Your task to perform on an android device: delete browsing data in the chrome app Image 0: 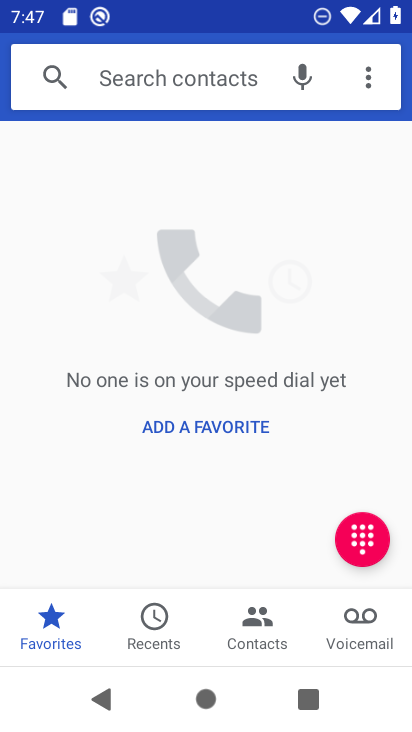
Step 0: press home button
Your task to perform on an android device: delete browsing data in the chrome app Image 1: 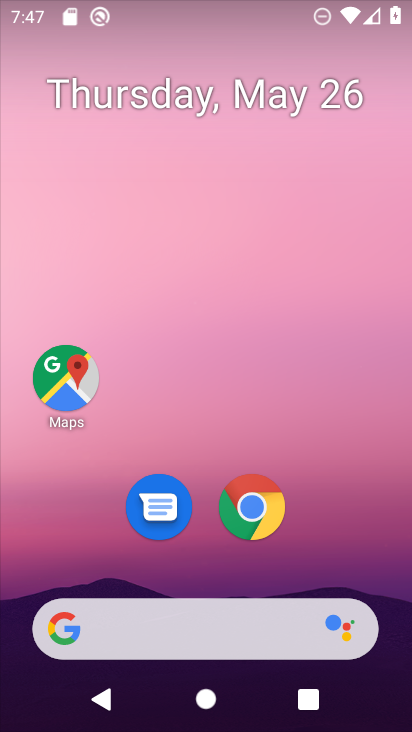
Step 1: click (242, 511)
Your task to perform on an android device: delete browsing data in the chrome app Image 2: 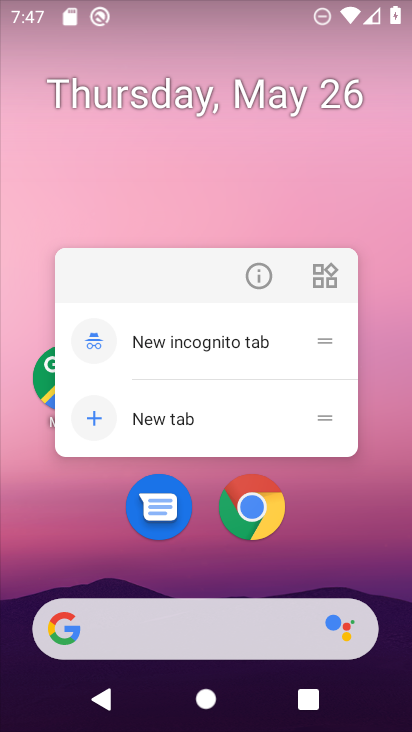
Step 2: click (248, 515)
Your task to perform on an android device: delete browsing data in the chrome app Image 3: 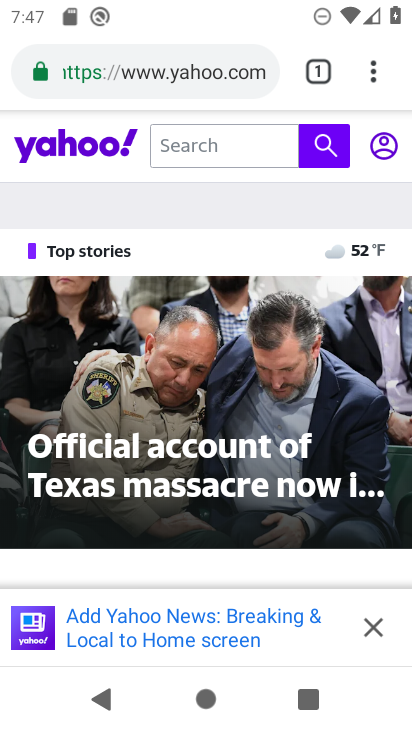
Step 3: click (372, 73)
Your task to perform on an android device: delete browsing data in the chrome app Image 4: 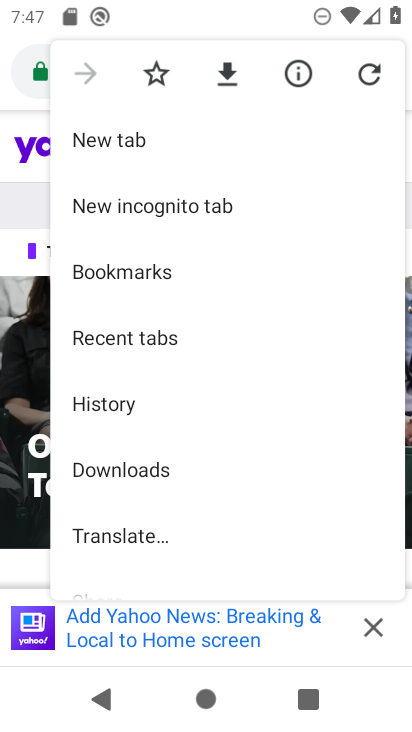
Step 4: click (117, 414)
Your task to perform on an android device: delete browsing data in the chrome app Image 5: 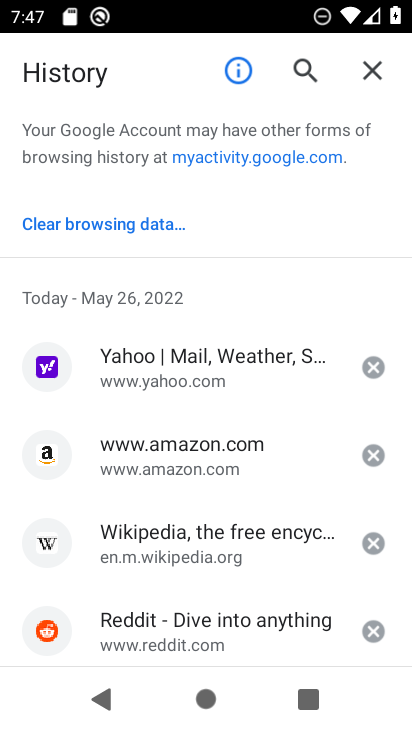
Step 5: click (101, 235)
Your task to perform on an android device: delete browsing data in the chrome app Image 6: 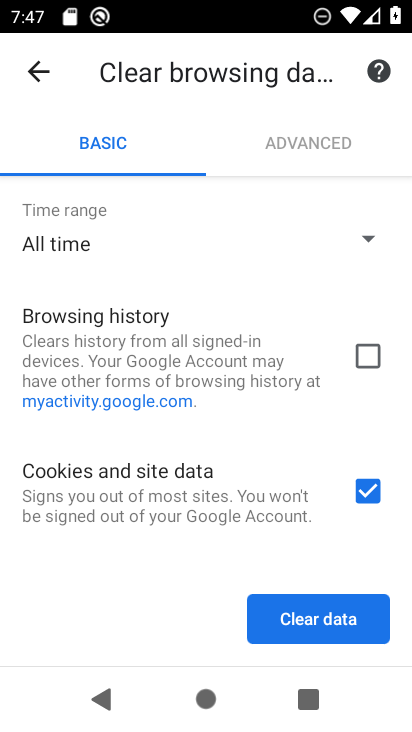
Step 6: click (358, 367)
Your task to perform on an android device: delete browsing data in the chrome app Image 7: 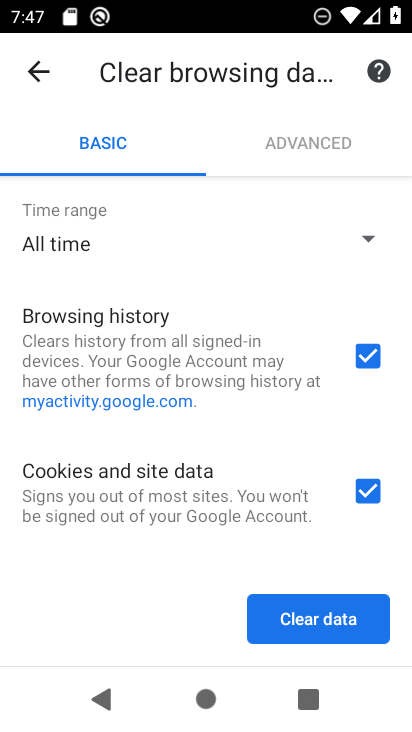
Step 7: drag from (284, 402) to (284, 327)
Your task to perform on an android device: delete browsing data in the chrome app Image 8: 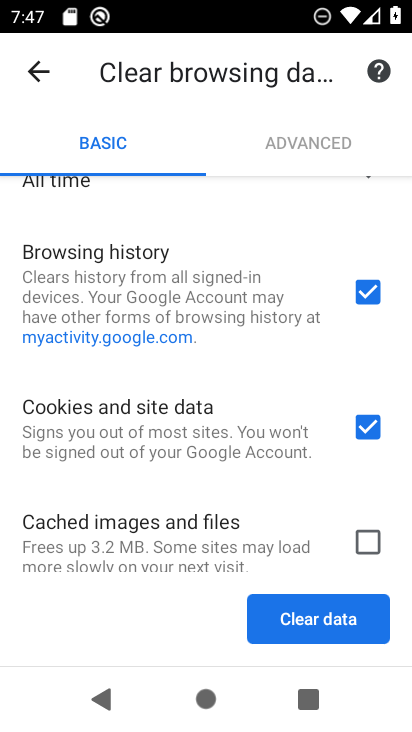
Step 8: click (370, 541)
Your task to perform on an android device: delete browsing data in the chrome app Image 9: 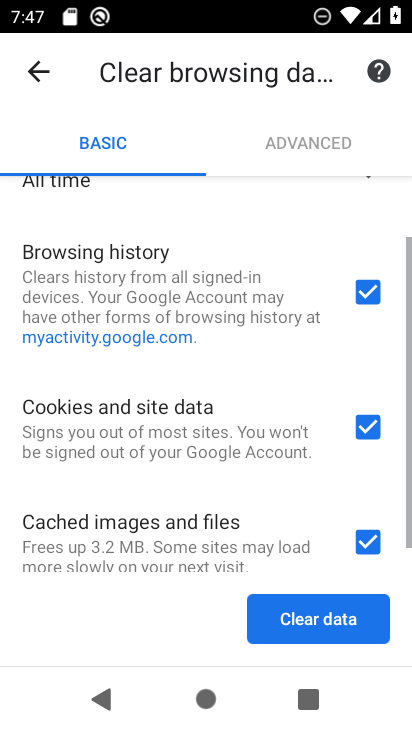
Step 9: click (296, 632)
Your task to perform on an android device: delete browsing data in the chrome app Image 10: 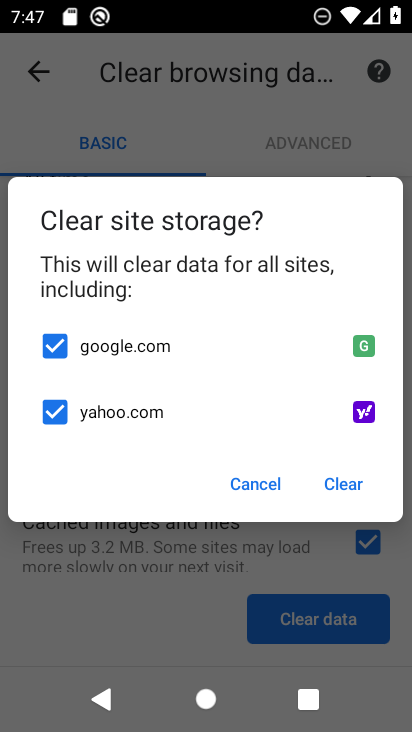
Step 10: click (343, 482)
Your task to perform on an android device: delete browsing data in the chrome app Image 11: 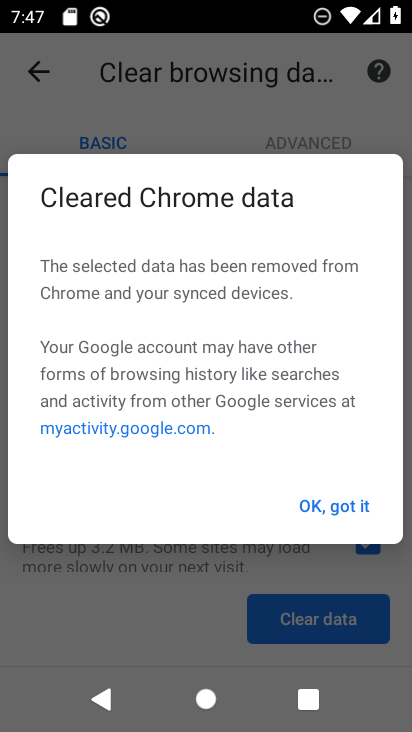
Step 11: click (346, 509)
Your task to perform on an android device: delete browsing data in the chrome app Image 12: 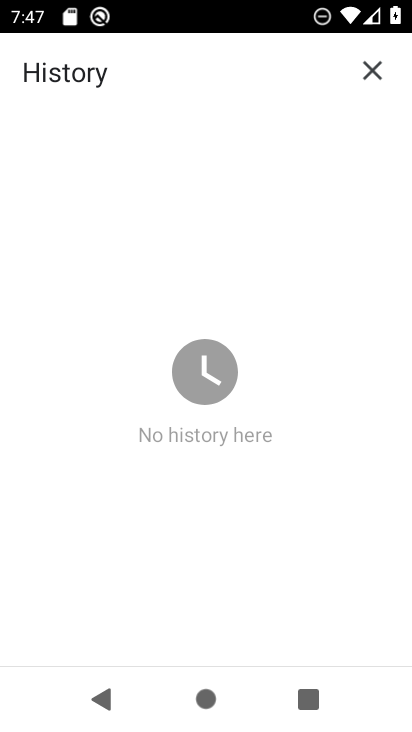
Step 12: task complete